Your task to perform on an android device: turn notification dots on Image 0: 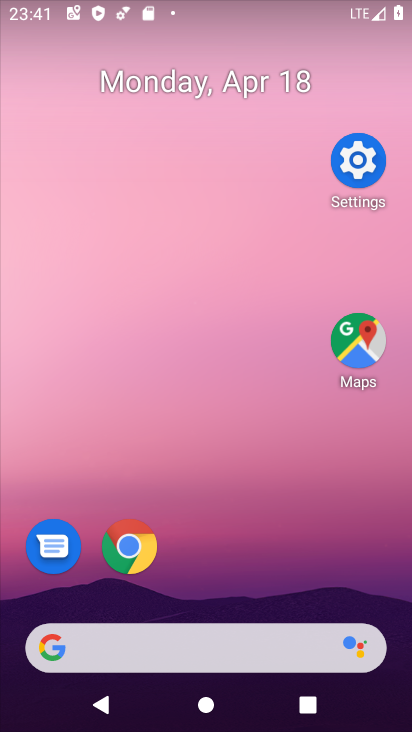
Step 0: drag from (305, 636) to (198, 224)
Your task to perform on an android device: turn notification dots on Image 1: 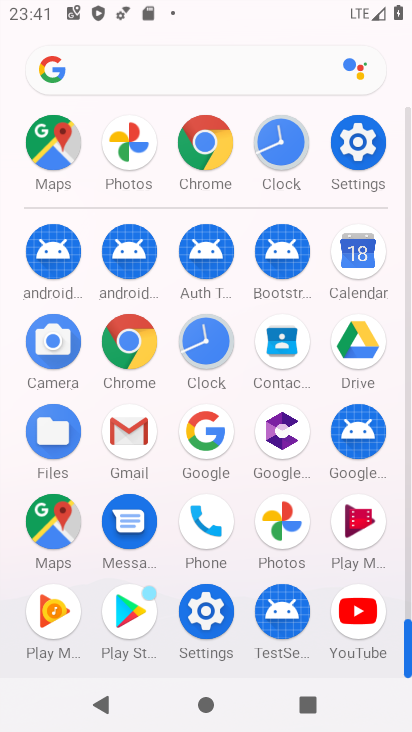
Step 1: click (341, 138)
Your task to perform on an android device: turn notification dots on Image 2: 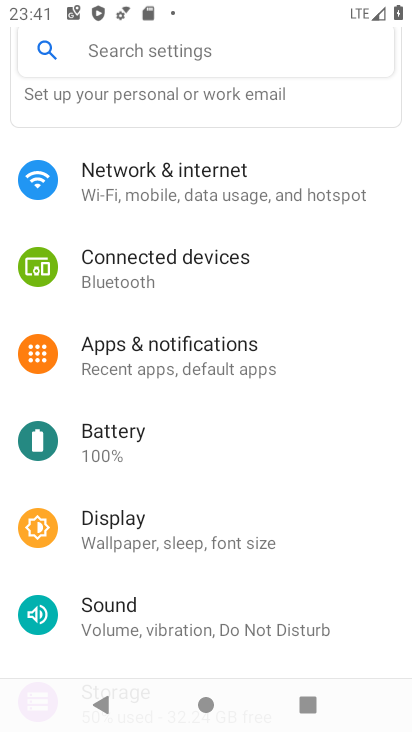
Step 2: drag from (184, 504) to (123, 242)
Your task to perform on an android device: turn notification dots on Image 3: 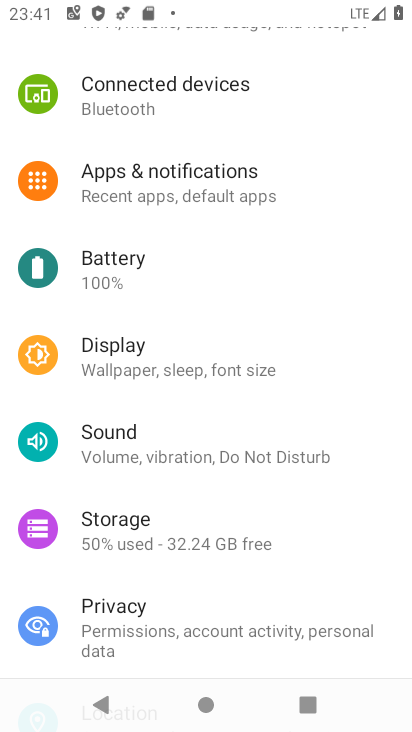
Step 3: drag from (148, 320) to (148, 278)
Your task to perform on an android device: turn notification dots on Image 4: 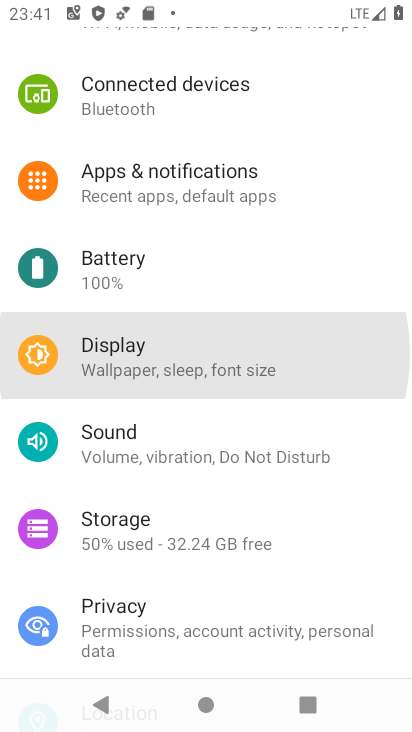
Step 4: drag from (225, 351) to (241, 291)
Your task to perform on an android device: turn notification dots on Image 5: 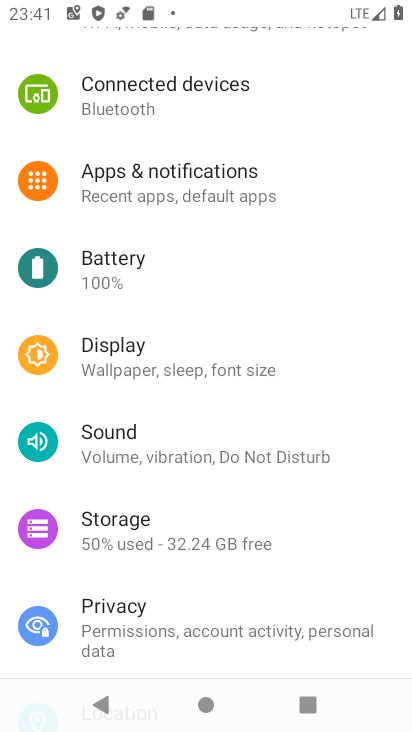
Step 5: drag from (206, 360) to (206, 317)
Your task to perform on an android device: turn notification dots on Image 6: 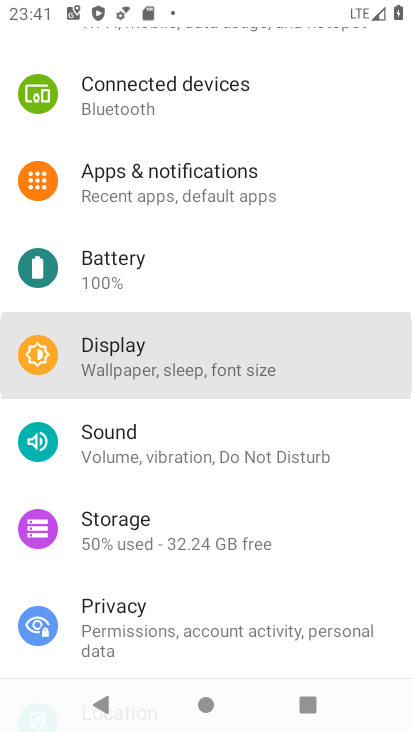
Step 6: drag from (211, 501) to (232, 287)
Your task to perform on an android device: turn notification dots on Image 7: 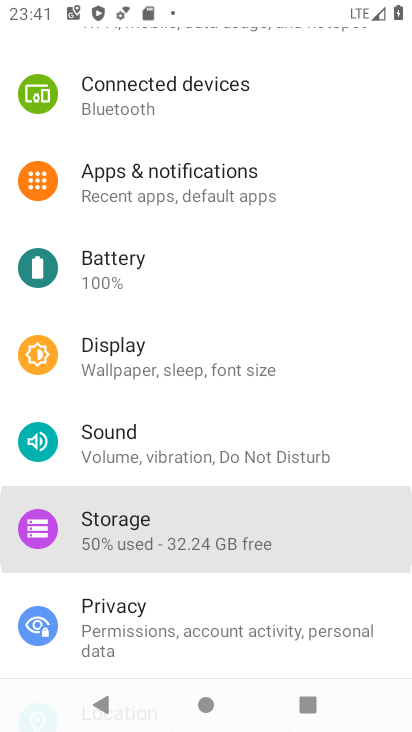
Step 7: drag from (161, 349) to (148, 262)
Your task to perform on an android device: turn notification dots on Image 8: 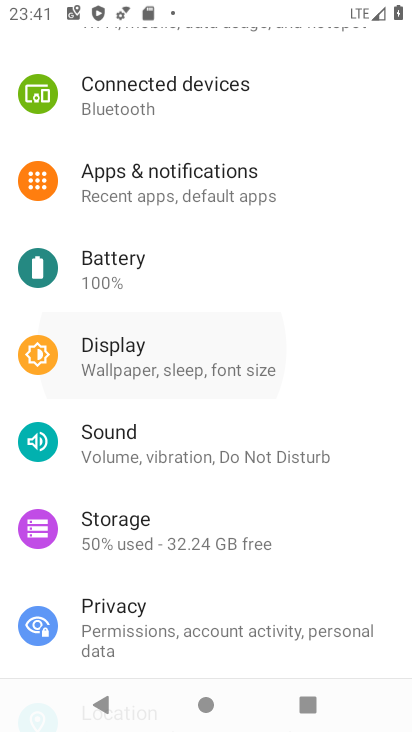
Step 8: drag from (207, 530) to (159, 282)
Your task to perform on an android device: turn notification dots on Image 9: 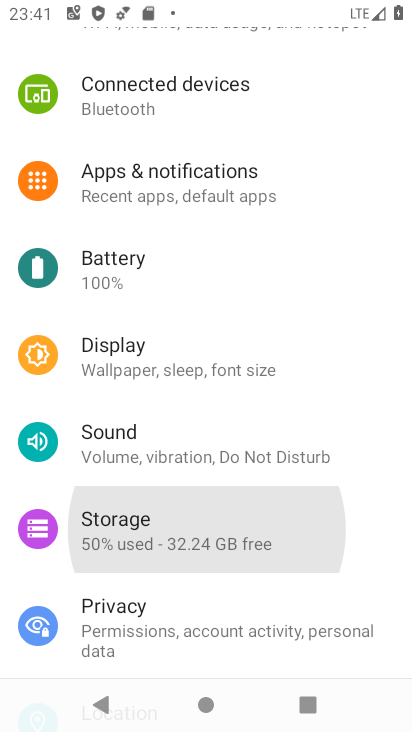
Step 9: drag from (186, 552) to (149, 178)
Your task to perform on an android device: turn notification dots on Image 10: 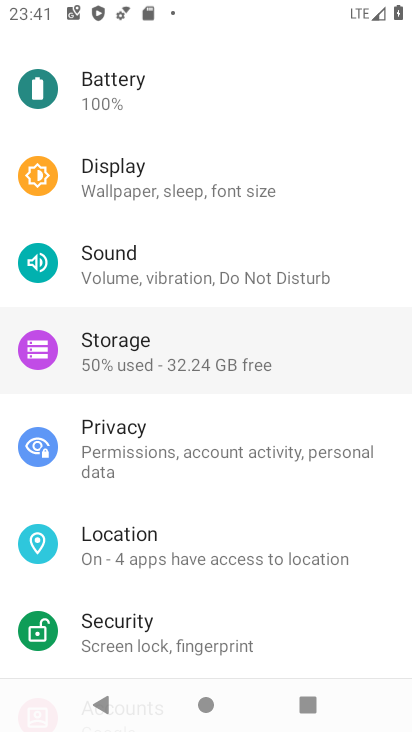
Step 10: click (161, 231)
Your task to perform on an android device: turn notification dots on Image 11: 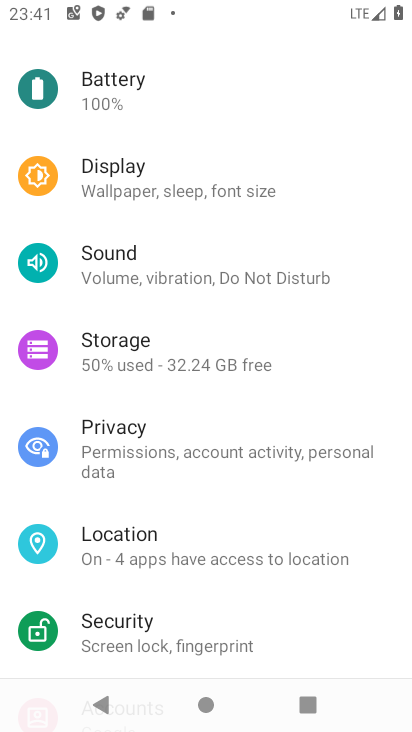
Step 11: drag from (160, 597) to (145, 214)
Your task to perform on an android device: turn notification dots on Image 12: 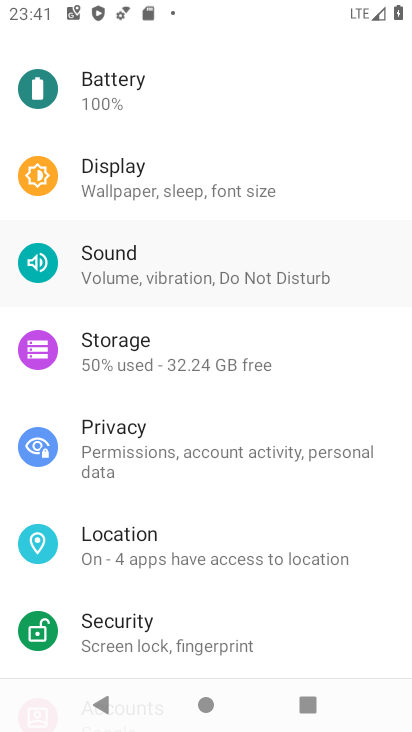
Step 12: drag from (220, 539) to (197, 267)
Your task to perform on an android device: turn notification dots on Image 13: 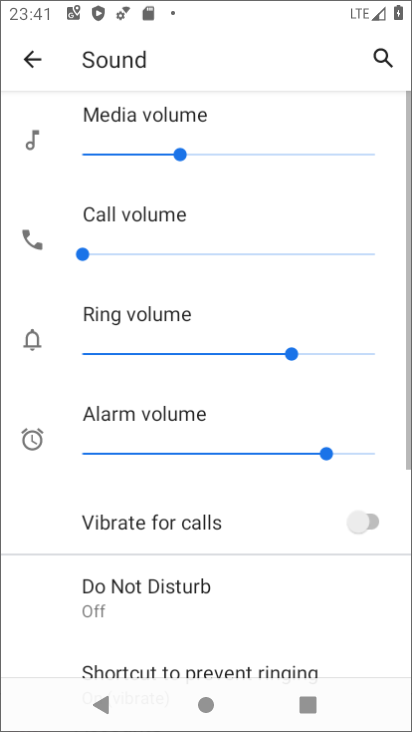
Step 13: drag from (250, 618) to (236, 343)
Your task to perform on an android device: turn notification dots on Image 14: 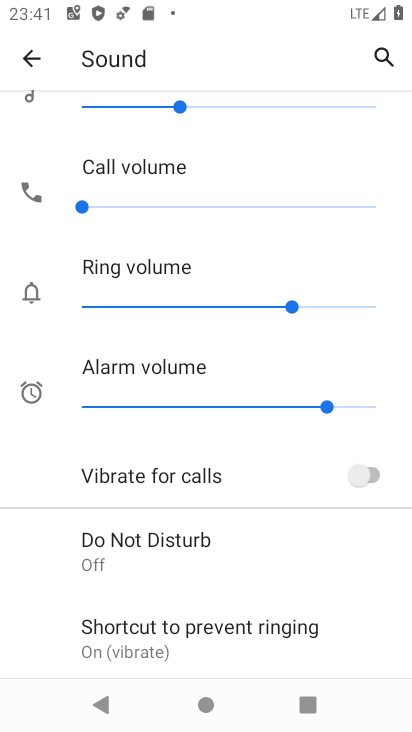
Step 14: click (36, 58)
Your task to perform on an android device: turn notification dots on Image 15: 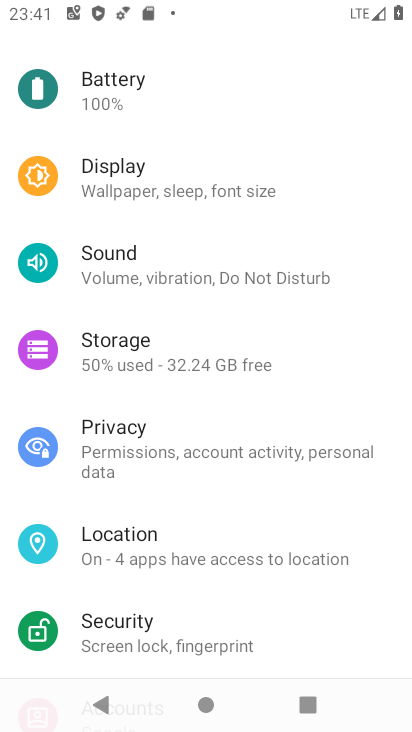
Step 15: drag from (235, 584) to (216, 326)
Your task to perform on an android device: turn notification dots on Image 16: 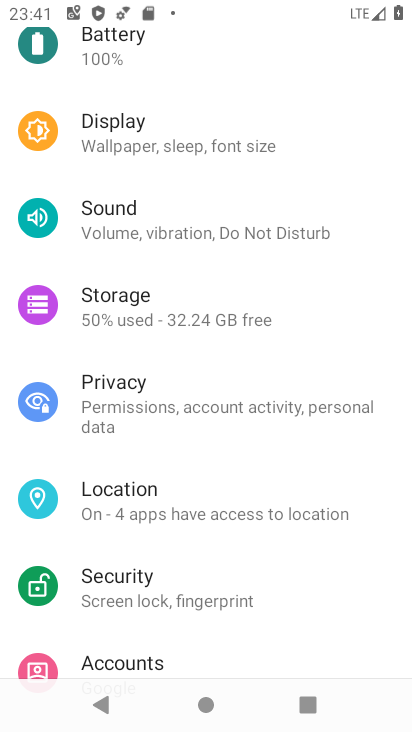
Step 16: drag from (168, 401) to (193, 513)
Your task to perform on an android device: turn notification dots on Image 17: 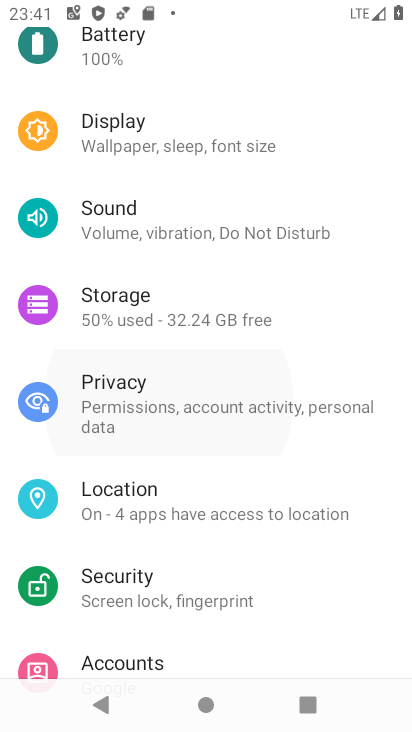
Step 17: drag from (169, 442) to (211, 576)
Your task to perform on an android device: turn notification dots on Image 18: 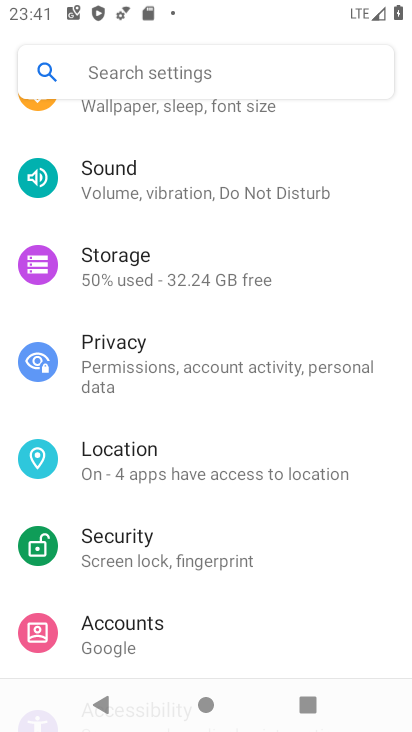
Step 18: drag from (199, 517) to (227, 664)
Your task to perform on an android device: turn notification dots on Image 19: 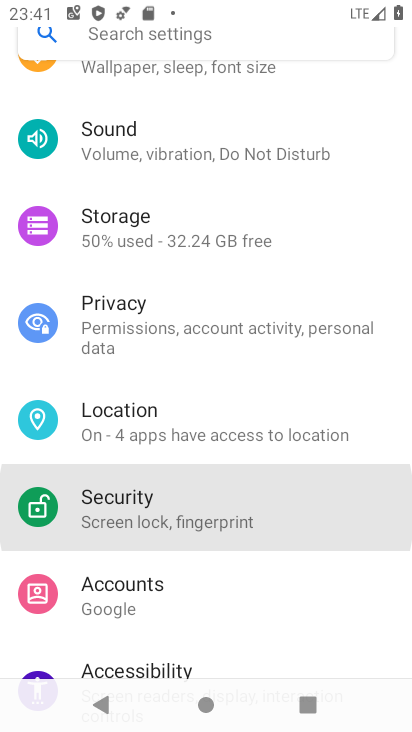
Step 19: drag from (209, 547) to (219, 604)
Your task to perform on an android device: turn notification dots on Image 20: 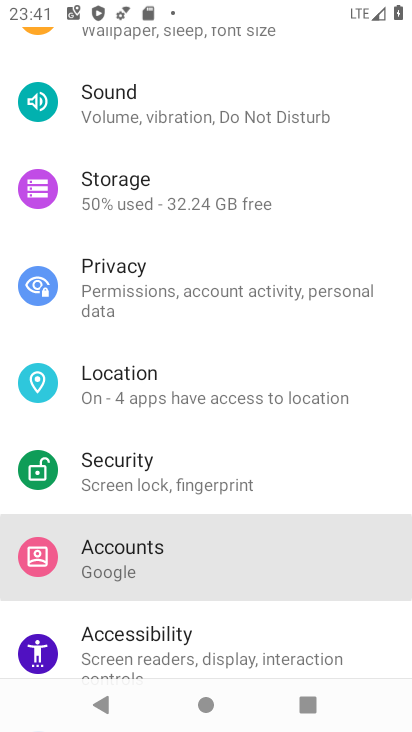
Step 20: drag from (192, 267) to (243, 661)
Your task to perform on an android device: turn notification dots on Image 21: 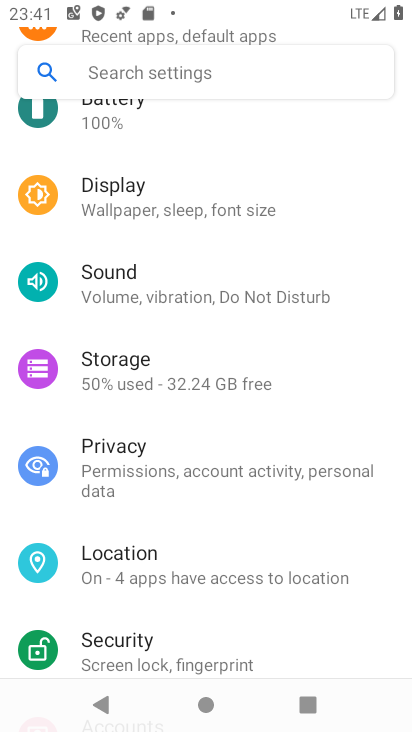
Step 21: drag from (136, 273) to (186, 505)
Your task to perform on an android device: turn notification dots on Image 22: 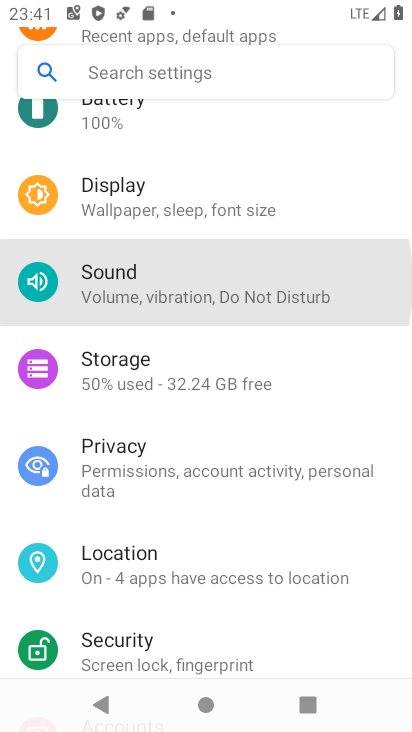
Step 22: click (194, 535)
Your task to perform on an android device: turn notification dots on Image 23: 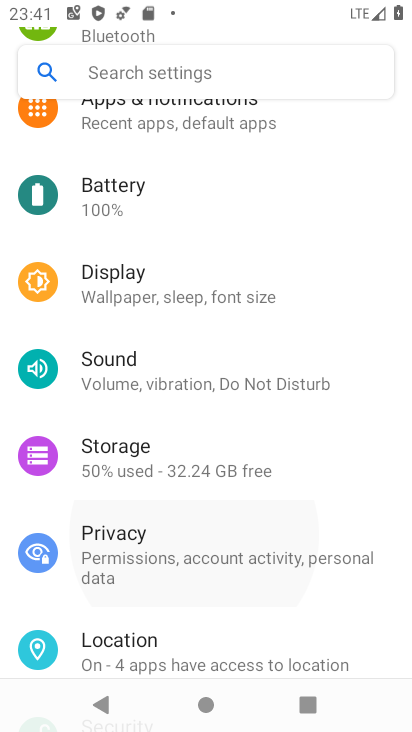
Step 23: drag from (169, 430) to (226, 573)
Your task to perform on an android device: turn notification dots on Image 24: 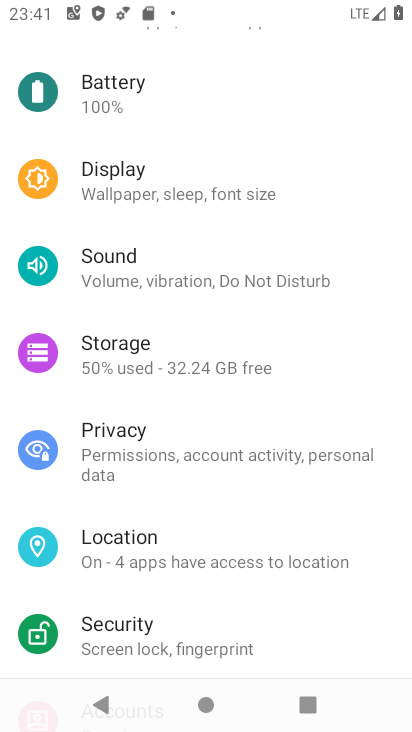
Step 24: drag from (166, 283) to (178, 543)
Your task to perform on an android device: turn notification dots on Image 25: 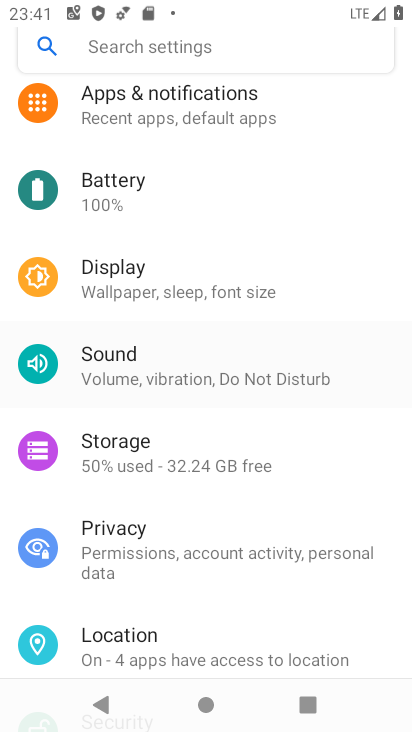
Step 25: click (166, 647)
Your task to perform on an android device: turn notification dots on Image 26: 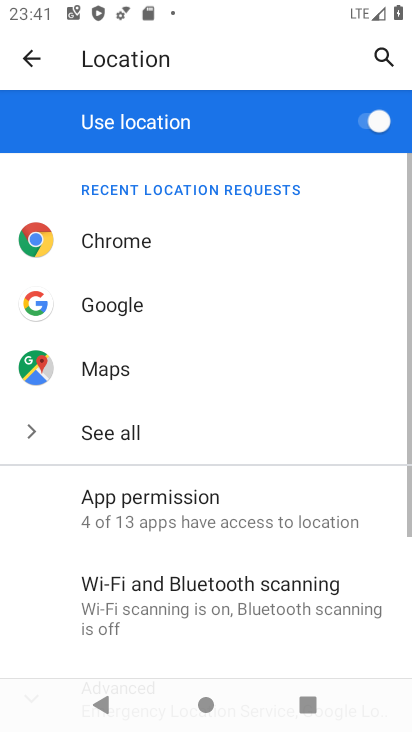
Step 26: click (27, 60)
Your task to perform on an android device: turn notification dots on Image 27: 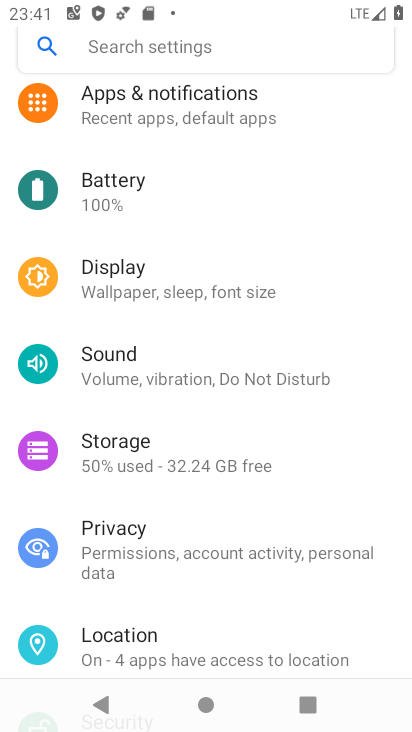
Step 27: click (166, 117)
Your task to perform on an android device: turn notification dots on Image 28: 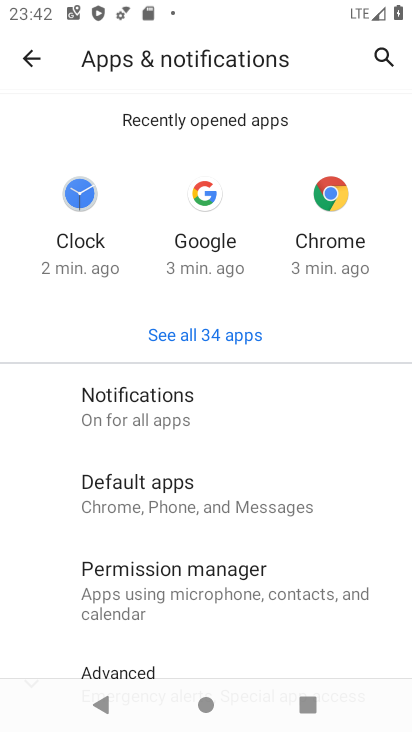
Step 28: drag from (215, 588) to (233, 466)
Your task to perform on an android device: turn notification dots on Image 29: 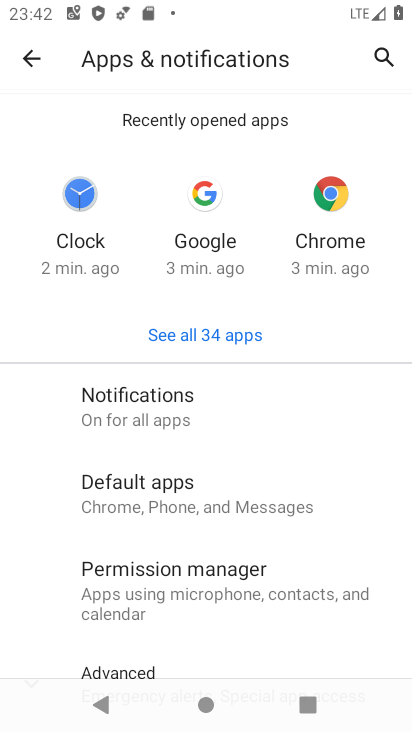
Step 29: click (116, 412)
Your task to perform on an android device: turn notification dots on Image 30: 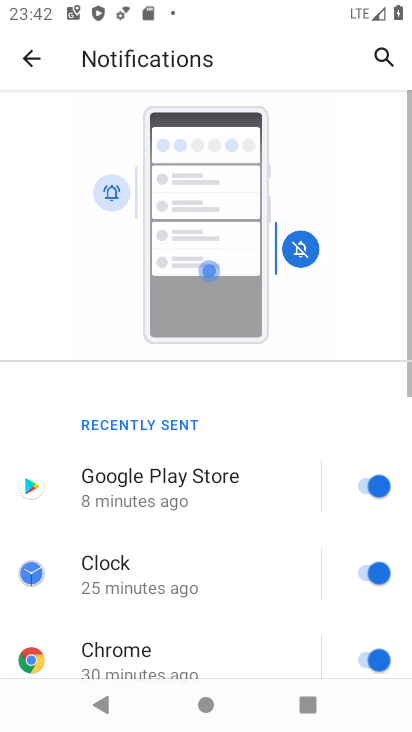
Step 30: click (116, 412)
Your task to perform on an android device: turn notification dots on Image 31: 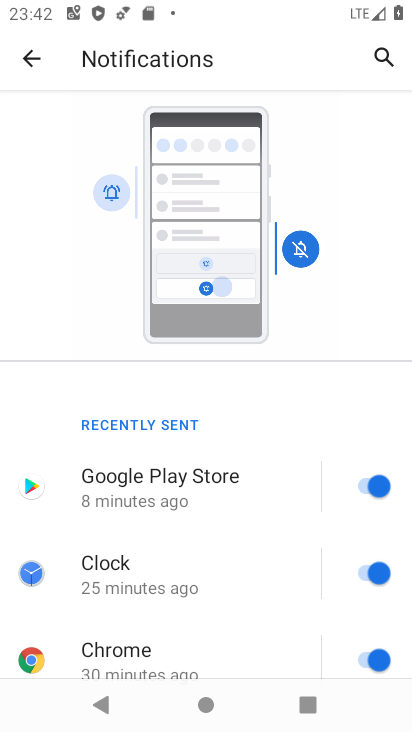
Step 31: drag from (224, 618) to (393, 312)
Your task to perform on an android device: turn notification dots on Image 32: 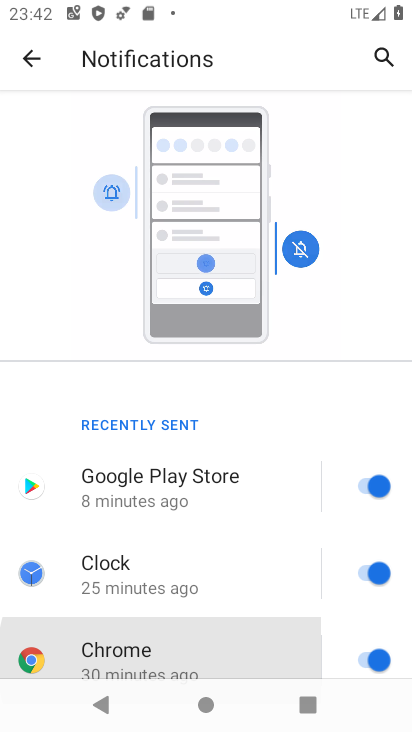
Step 32: drag from (286, 516) to (296, 258)
Your task to perform on an android device: turn notification dots on Image 33: 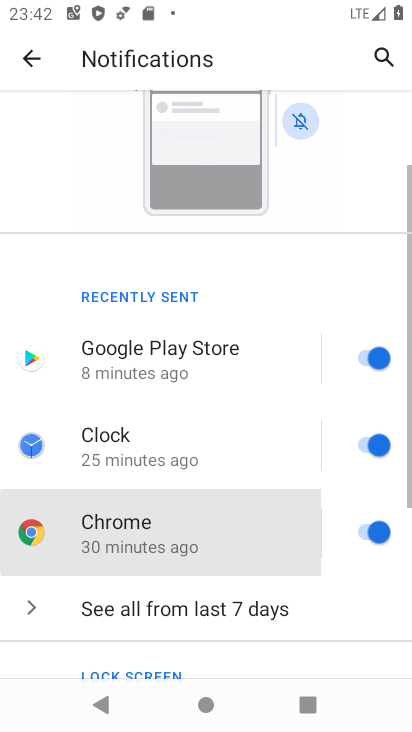
Step 33: drag from (281, 551) to (250, 327)
Your task to perform on an android device: turn notification dots on Image 34: 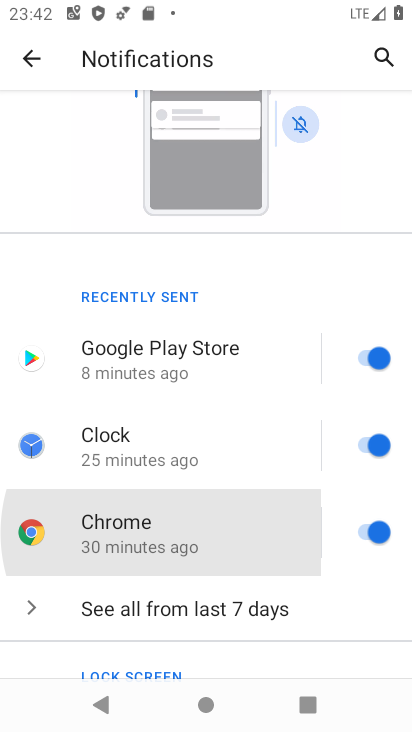
Step 34: click (180, 414)
Your task to perform on an android device: turn notification dots on Image 35: 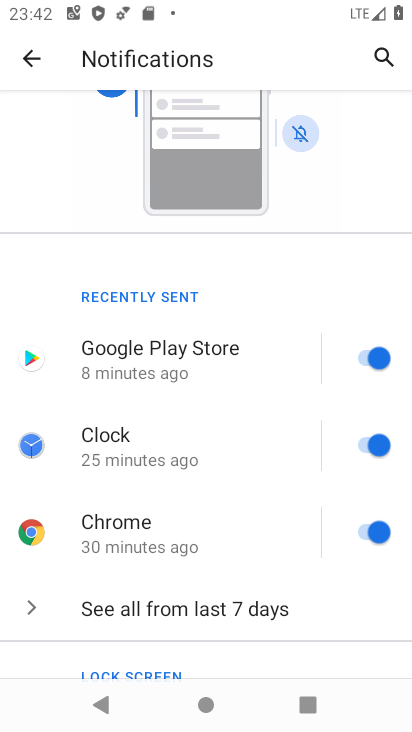
Step 35: drag from (219, 546) to (226, 322)
Your task to perform on an android device: turn notification dots on Image 36: 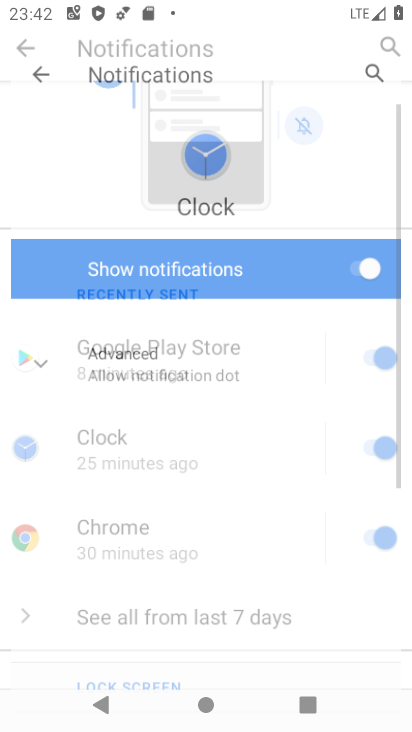
Step 36: drag from (249, 289) to (236, 203)
Your task to perform on an android device: turn notification dots on Image 37: 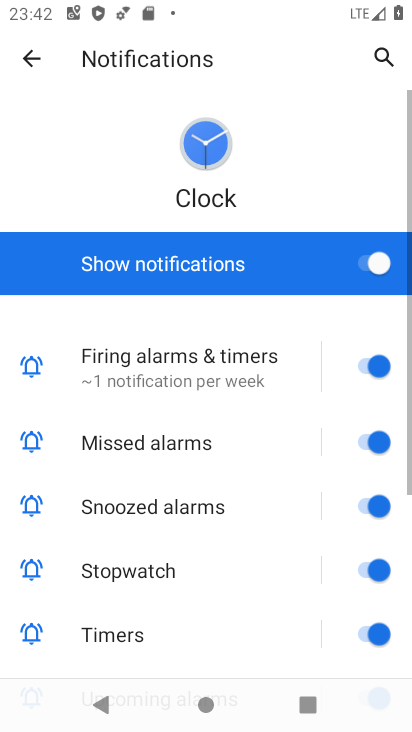
Step 37: click (240, 253)
Your task to perform on an android device: turn notification dots on Image 38: 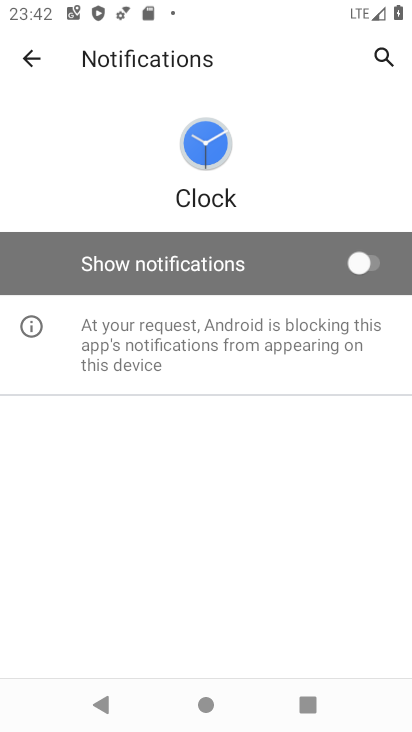
Step 38: click (27, 51)
Your task to perform on an android device: turn notification dots on Image 39: 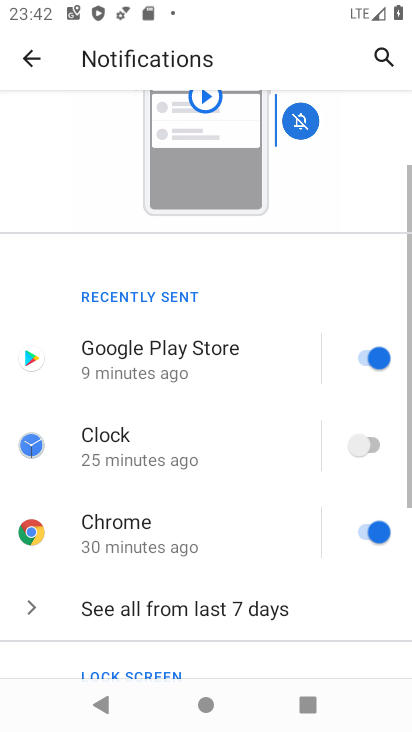
Step 39: drag from (205, 563) to (212, 304)
Your task to perform on an android device: turn notification dots on Image 40: 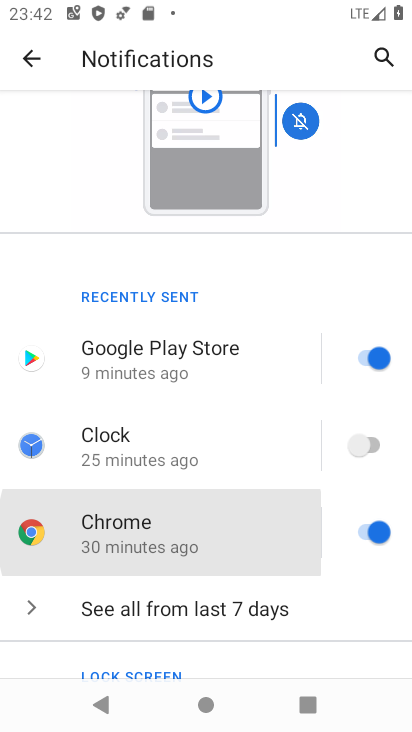
Step 40: drag from (173, 462) to (189, 275)
Your task to perform on an android device: turn notification dots on Image 41: 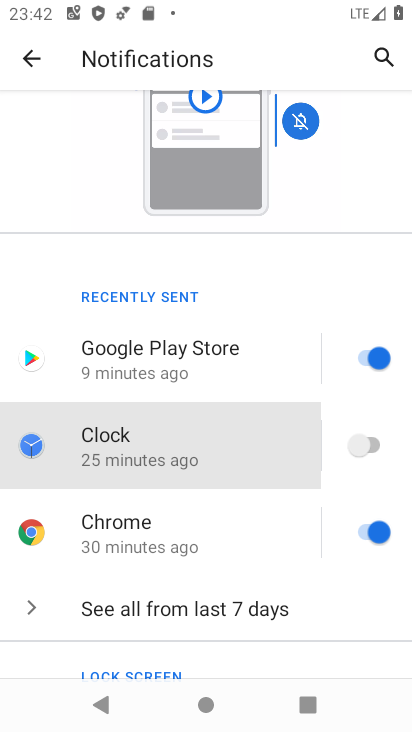
Step 41: click (185, 347)
Your task to perform on an android device: turn notification dots on Image 42: 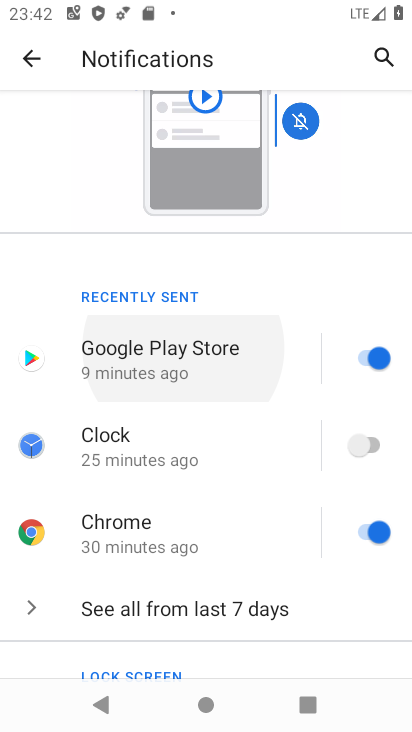
Step 42: drag from (213, 456) to (215, 352)
Your task to perform on an android device: turn notification dots on Image 43: 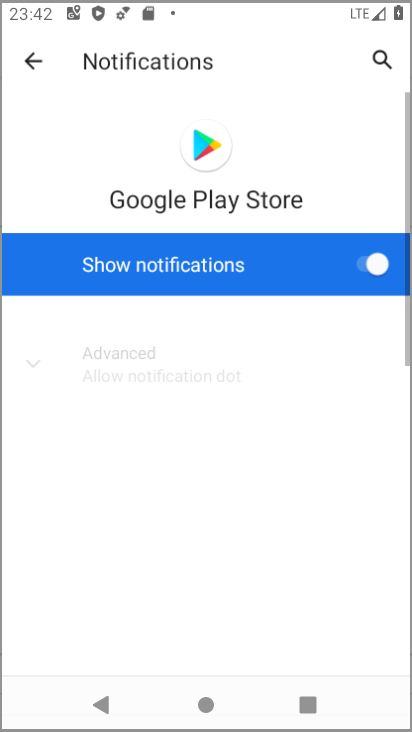
Step 43: drag from (251, 517) to (221, 305)
Your task to perform on an android device: turn notification dots on Image 44: 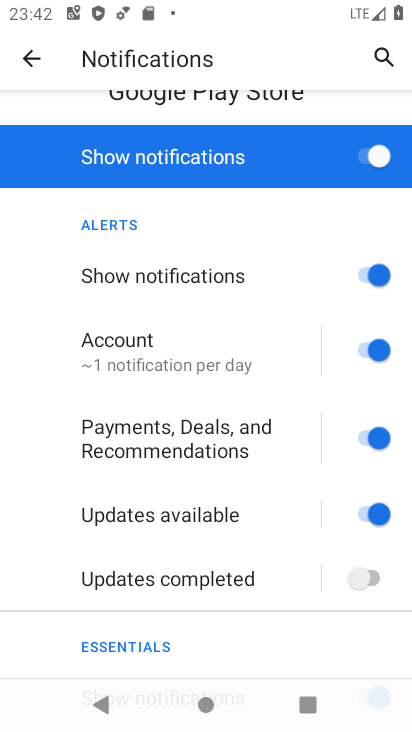
Step 44: drag from (192, 501) to (165, 343)
Your task to perform on an android device: turn notification dots on Image 45: 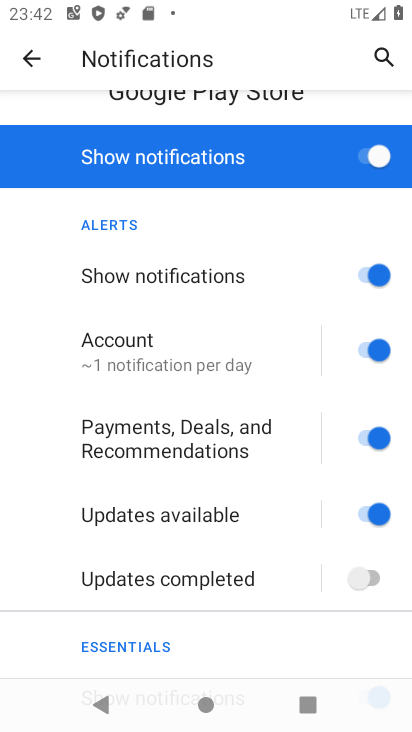
Step 45: click (29, 46)
Your task to perform on an android device: turn notification dots on Image 46: 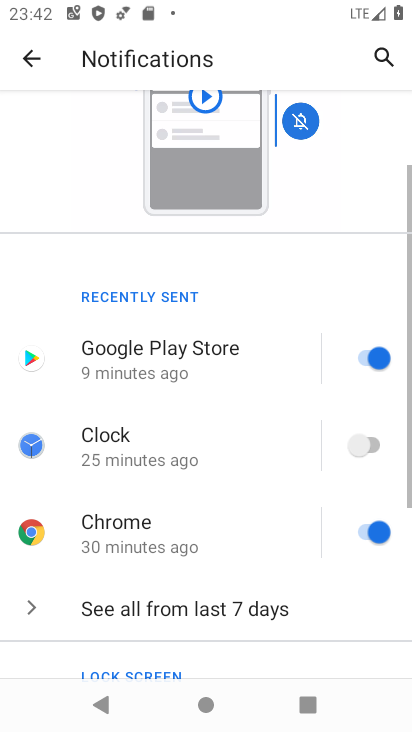
Step 46: drag from (144, 563) to (129, 401)
Your task to perform on an android device: turn notification dots on Image 47: 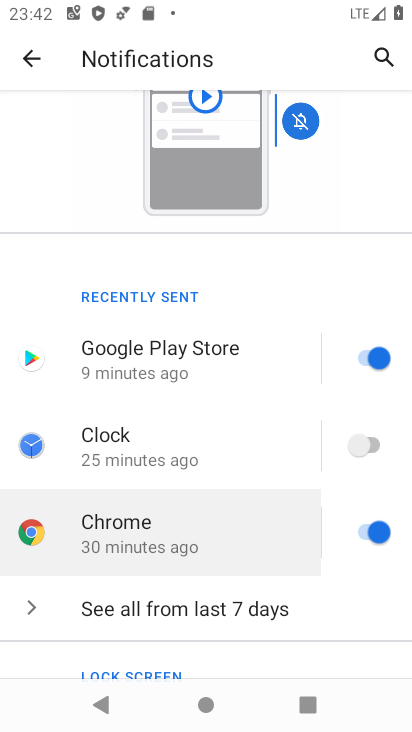
Step 47: drag from (207, 520) to (209, 389)
Your task to perform on an android device: turn notification dots on Image 48: 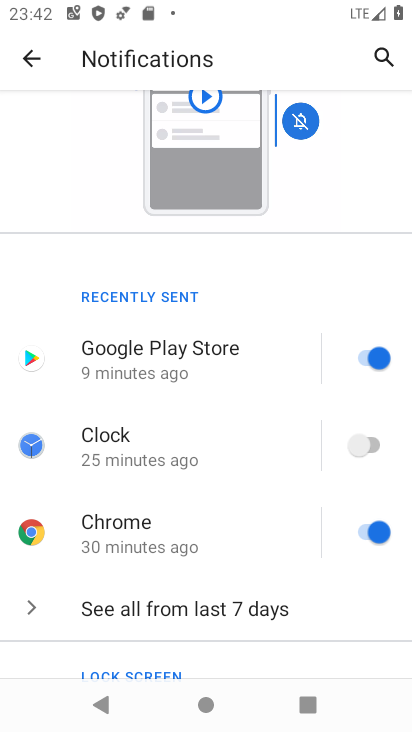
Step 48: drag from (272, 385) to (256, 278)
Your task to perform on an android device: turn notification dots on Image 49: 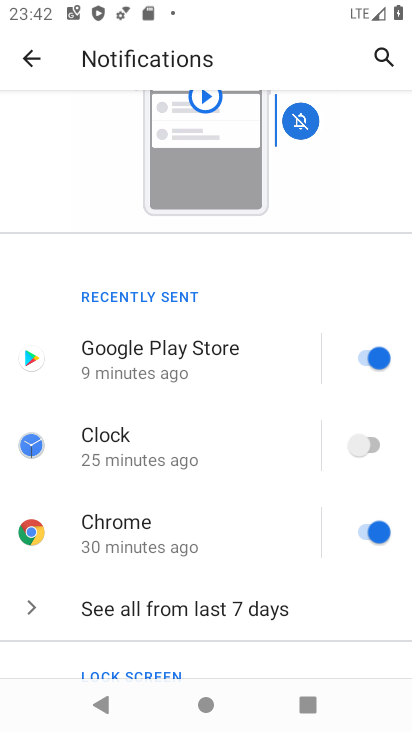
Step 49: drag from (239, 562) to (182, 260)
Your task to perform on an android device: turn notification dots on Image 50: 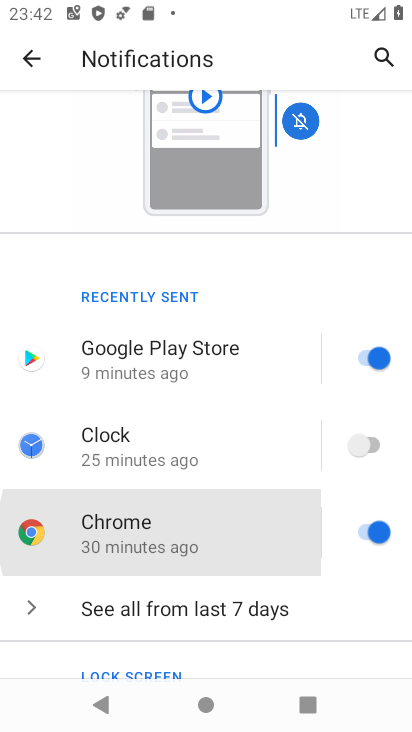
Step 50: drag from (253, 597) to (214, 312)
Your task to perform on an android device: turn notification dots on Image 51: 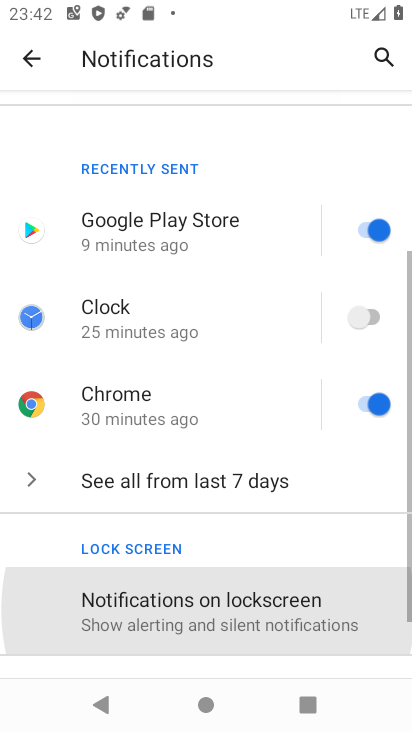
Step 51: drag from (280, 543) to (280, 237)
Your task to perform on an android device: turn notification dots on Image 52: 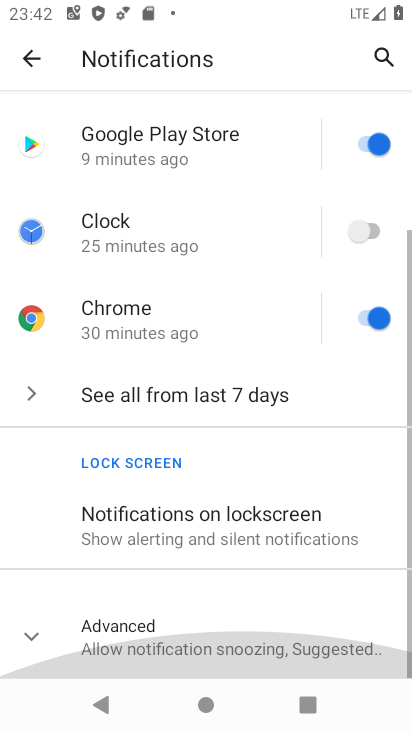
Step 52: drag from (305, 443) to (283, 256)
Your task to perform on an android device: turn notification dots on Image 53: 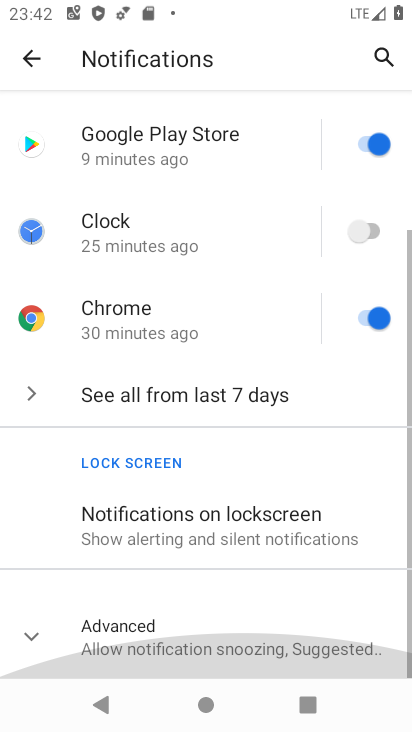
Step 53: drag from (295, 561) to (236, 256)
Your task to perform on an android device: turn notification dots on Image 54: 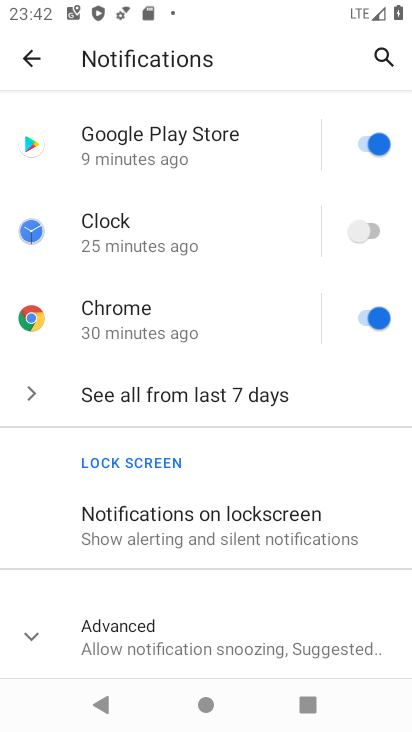
Step 54: click (119, 624)
Your task to perform on an android device: turn notification dots on Image 55: 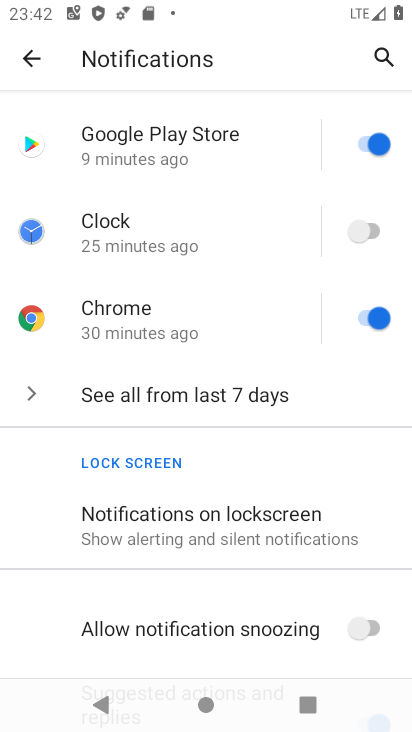
Step 55: task complete